Your task to perform on an android device: visit the assistant section in the google photos Image 0: 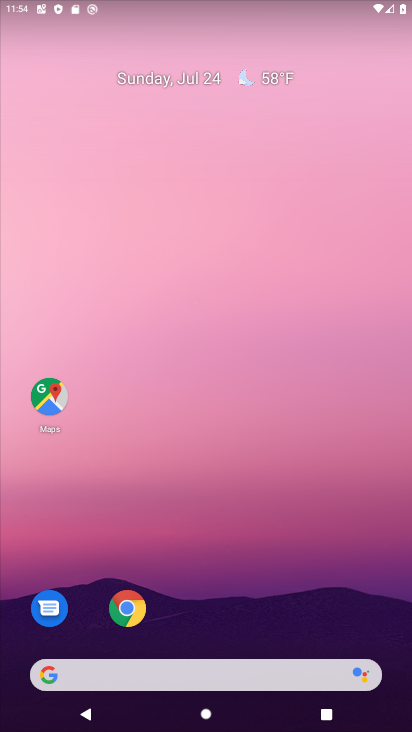
Step 0: drag from (207, 666) to (198, 153)
Your task to perform on an android device: visit the assistant section in the google photos Image 1: 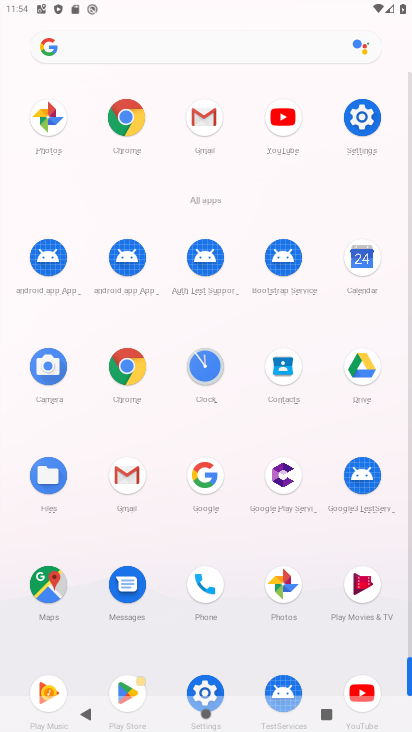
Step 1: click (285, 591)
Your task to perform on an android device: visit the assistant section in the google photos Image 2: 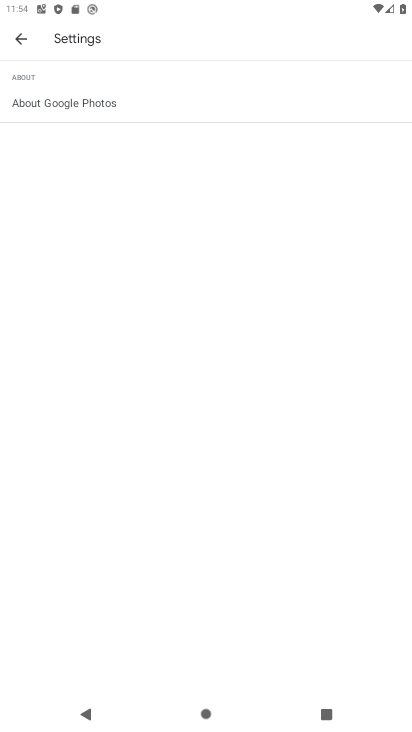
Step 2: press home button
Your task to perform on an android device: visit the assistant section in the google photos Image 3: 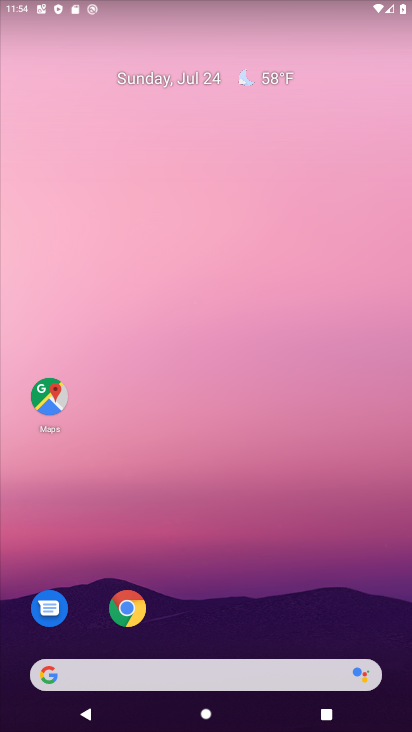
Step 3: drag from (216, 673) to (185, 128)
Your task to perform on an android device: visit the assistant section in the google photos Image 4: 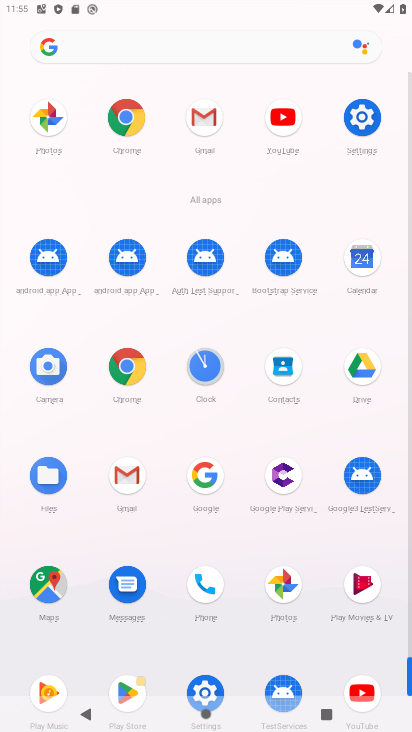
Step 4: click (279, 580)
Your task to perform on an android device: visit the assistant section in the google photos Image 5: 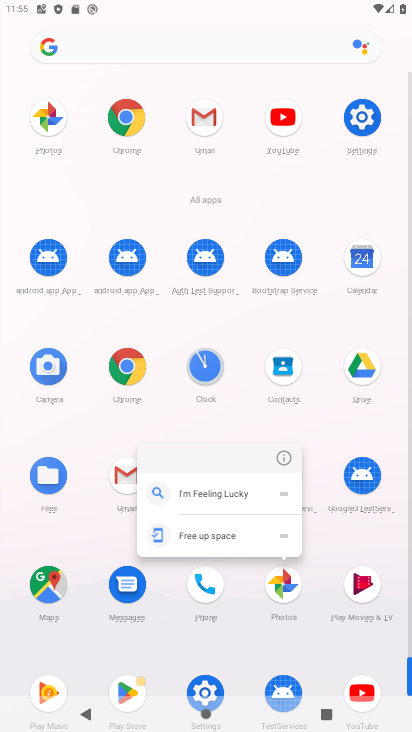
Step 5: click (287, 584)
Your task to perform on an android device: visit the assistant section in the google photos Image 6: 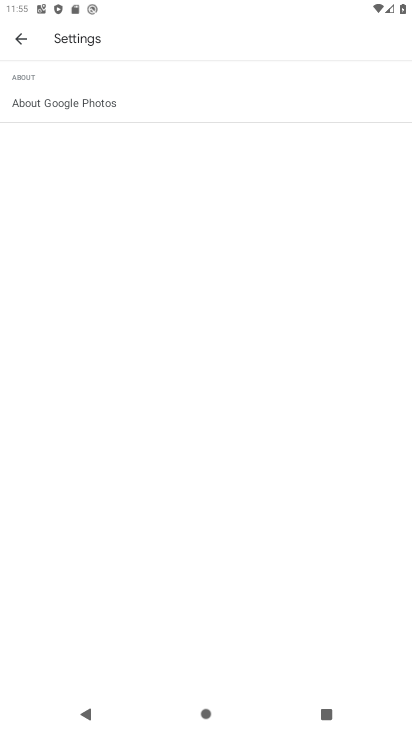
Step 6: click (24, 40)
Your task to perform on an android device: visit the assistant section in the google photos Image 7: 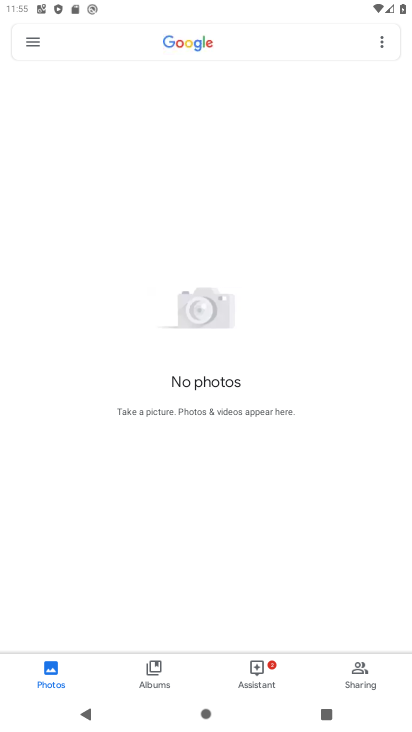
Step 7: click (249, 677)
Your task to perform on an android device: visit the assistant section in the google photos Image 8: 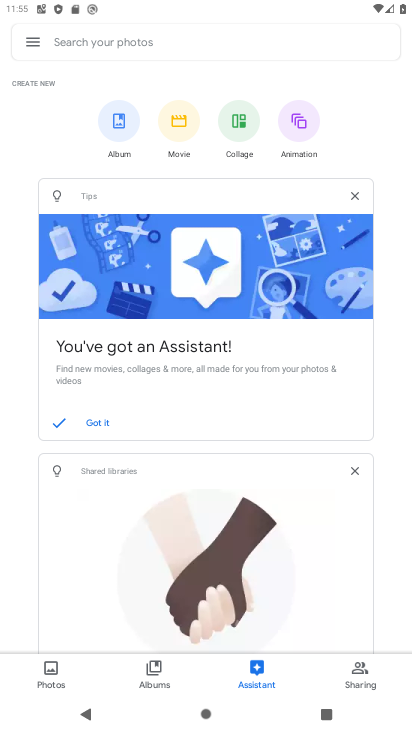
Step 8: task complete